Your task to perform on an android device: turn on translation in the chrome app Image 0: 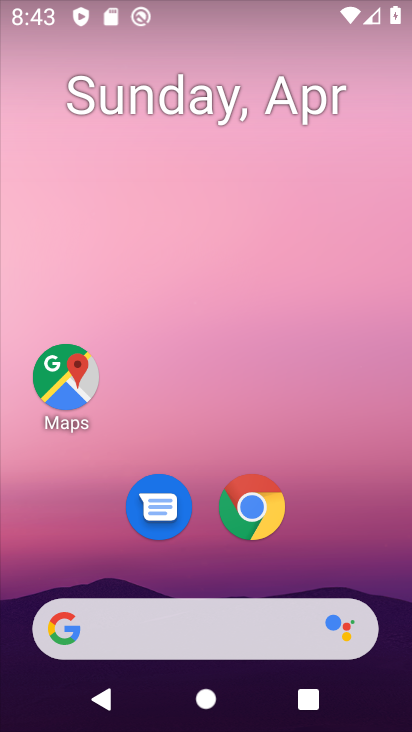
Step 0: drag from (206, 618) to (257, 303)
Your task to perform on an android device: turn on translation in the chrome app Image 1: 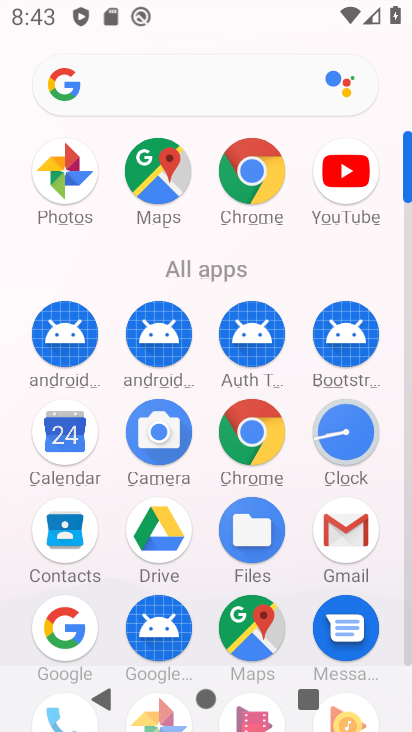
Step 1: click (264, 186)
Your task to perform on an android device: turn on translation in the chrome app Image 2: 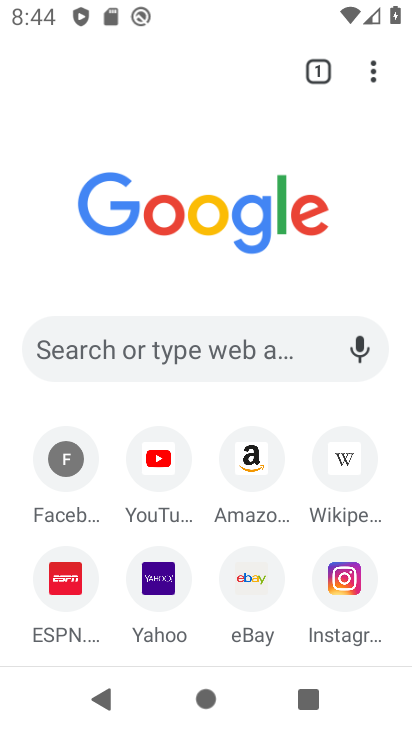
Step 2: click (365, 65)
Your task to perform on an android device: turn on translation in the chrome app Image 3: 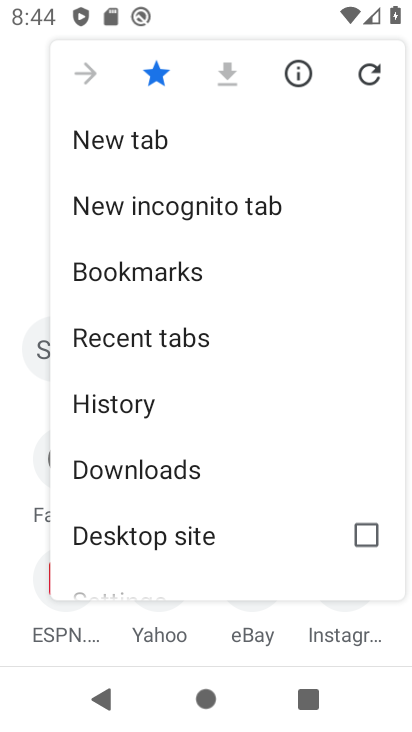
Step 3: task complete